Your task to perform on an android device: Go to privacy settings Image 0: 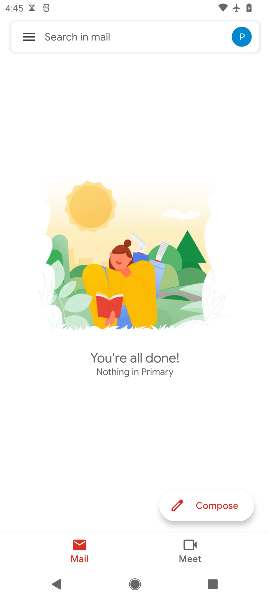
Step 0: press home button
Your task to perform on an android device: Go to privacy settings Image 1: 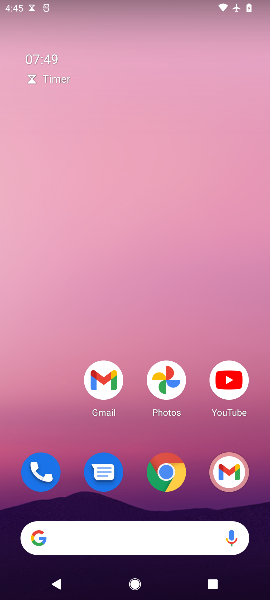
Step 1: drag from (129, 489) to (185, 221)
Your task to perform on an android device: Go to privacy settings Image 2: 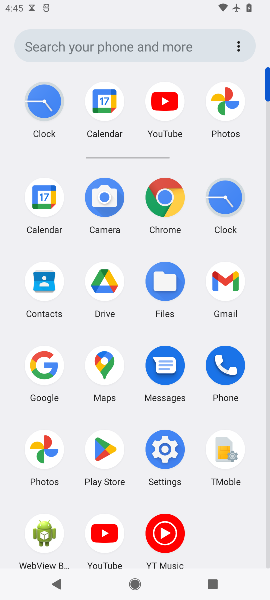
Step 2: click (169, 450)
Your task to perform on an android device: Go to privacy settings Image 3: 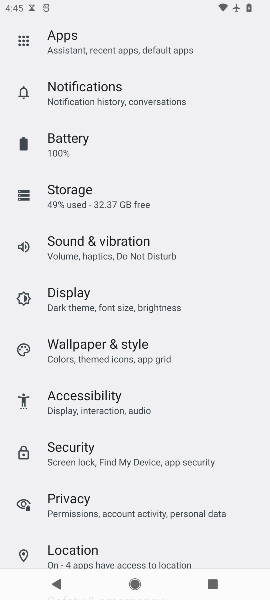
Step 3: click (100, 507)
Your task to perform on an android device: Go to privacy settings Image 4: 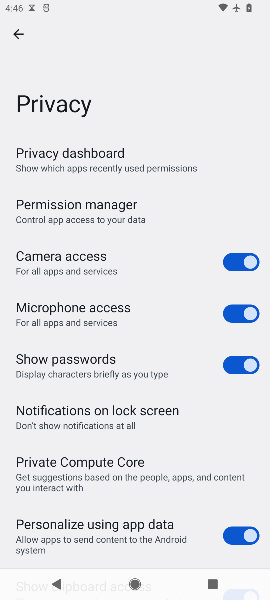
Step 4: task complete